Your task to perform on an android device: turn off priority inbox in the gmail app Image 0: 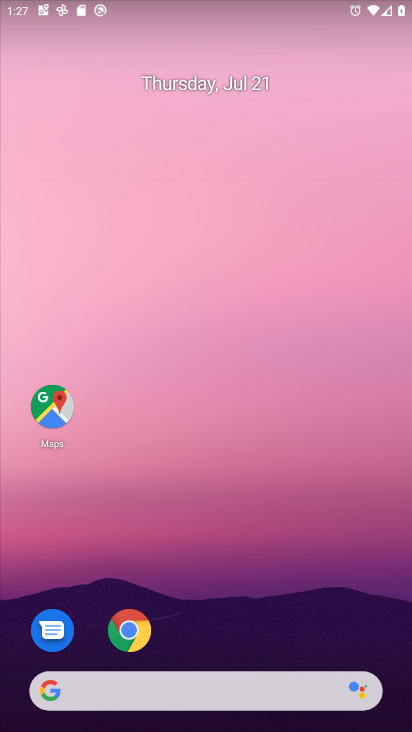
Step 0: drag from (222, 648) to (210, 145)
Your task to perform on an android device: turn off priority inbox in the gmail app Image 1: 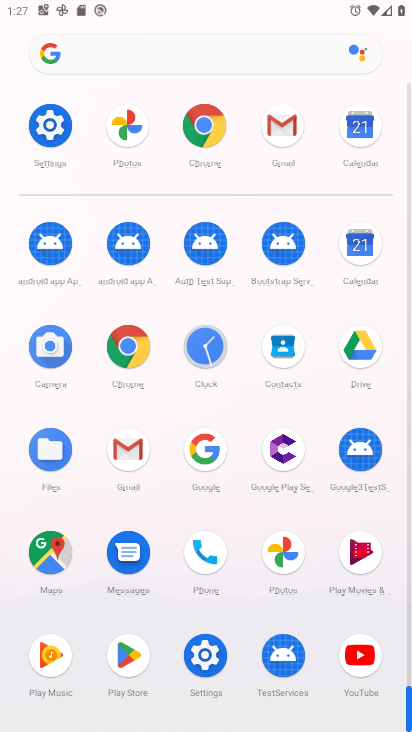
Step 1: click (277, 130)
Your task to perform on an android device: turn off priority inbox in the gmail app Image 2: 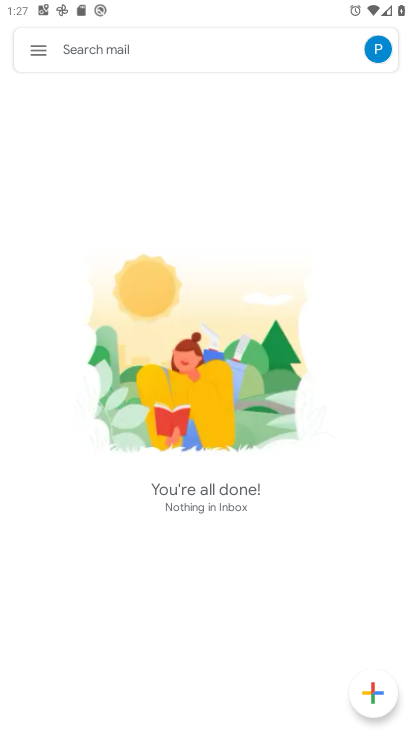
Step 2: click (36, 47)
Your task to perform on an android device: turn off priority inbox in the gmail app Image 3: 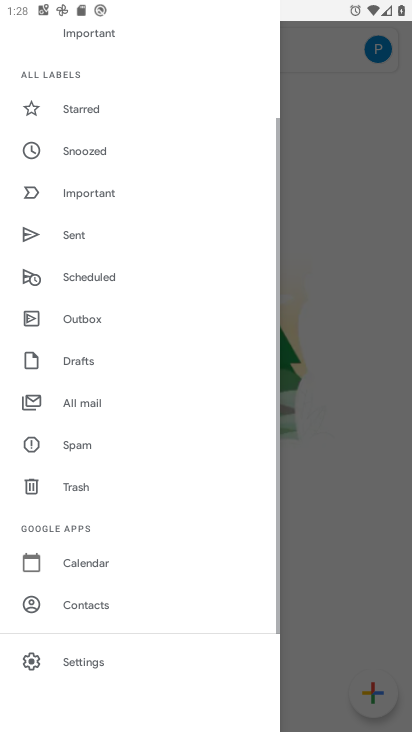
Step 3: click (78, 664)
Your task to perform on an android device: turn off priority inbox in the gmail app Image 4: 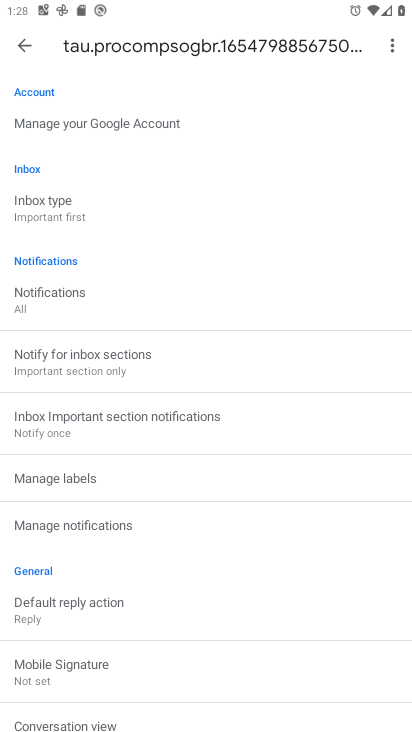
Step 4: click (80, 207)
Your task to perform on an android device: turn off priority inbox in the gmail app Image 5: 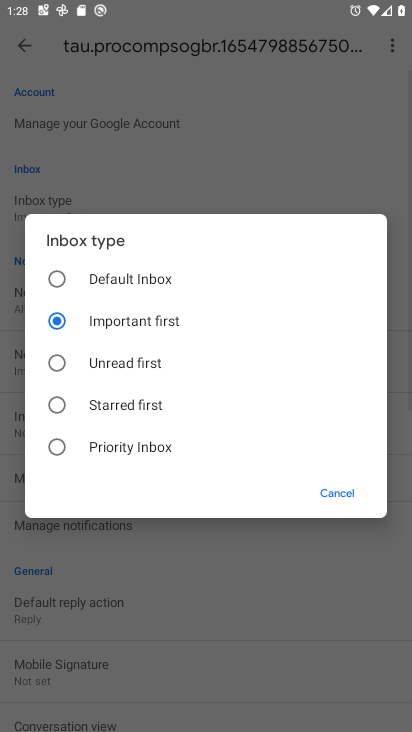
Step 5: click (69, 271)
Your task to perform on an android device: turn off priority inbox in the gmail app Image 6: 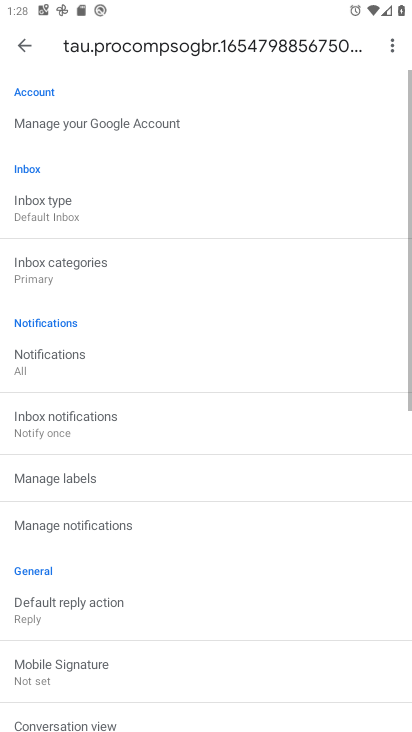
Step 6: task complete